Your task to perform on an android device: find photos in the google photos app Image 0: 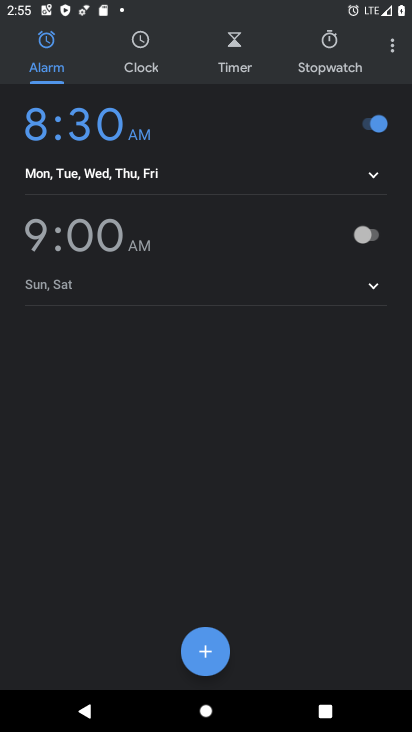
Step 0: press home button
Your task to perform on an android device: find photos in the google photos app Image 1: 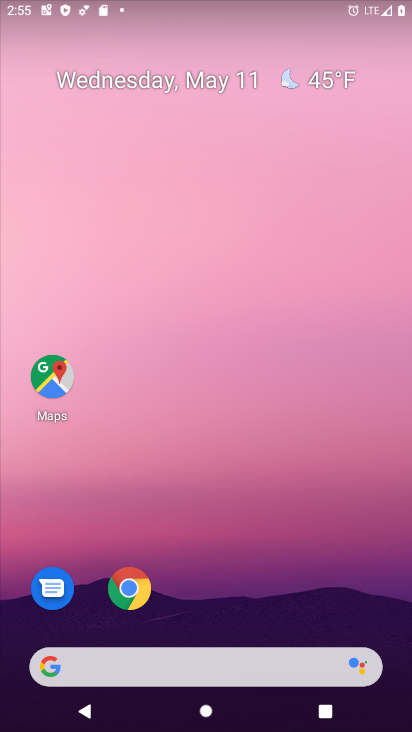
Step 1: drag from (200, 620) to (203, 279)
Your task to perform on an android device: find photos in the google photos app Image 2: 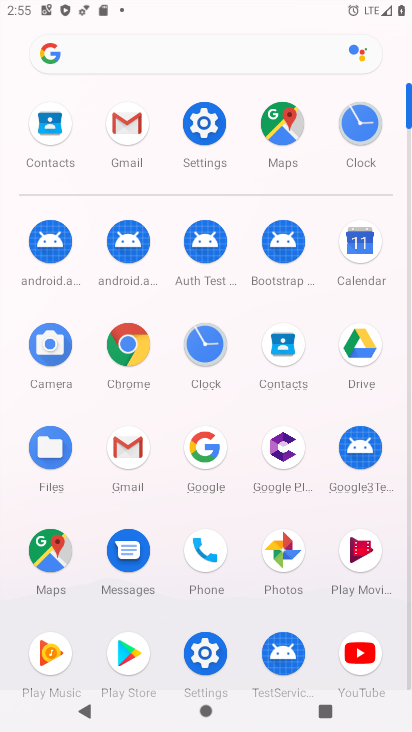
Step 2: click (282, 572)
Your task to perform on an android device: find photos in the google photos app Image 3: 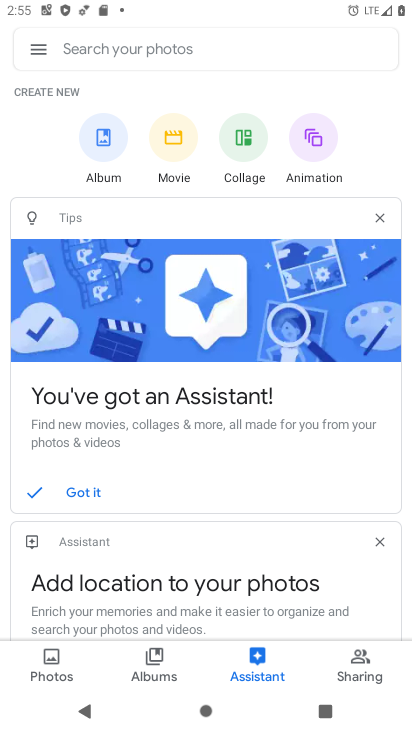
Step 3: click (180, 52)
Your task to perform on an android device: find photos in the google photos app Image 4: 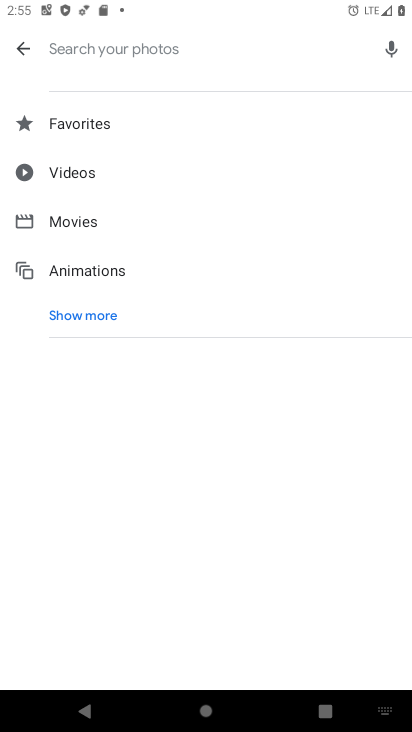
Step 4: type "aaa"
Your task to perform on an android device: find photos in the google photos app Image 5: 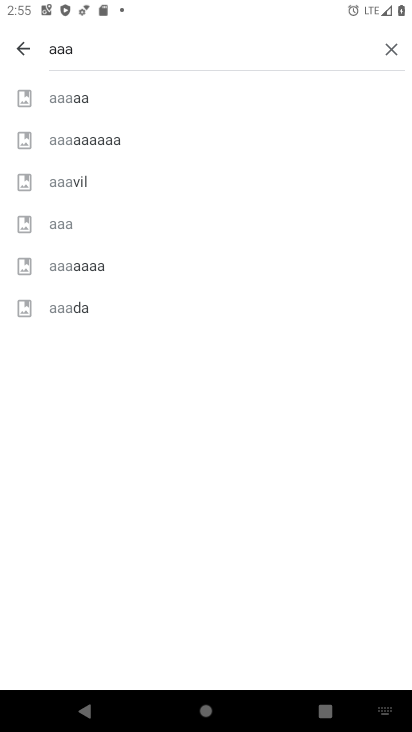
Step 5: click (67, 177)
Your task to perform on an android device: find photos in the google photos app Image 6: 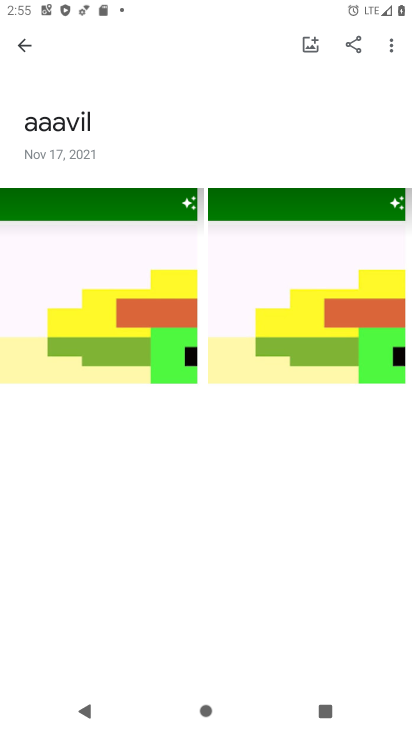
Step 6: task complete